Your task to perform on an android device: add a contact in the contacts app Image 0: 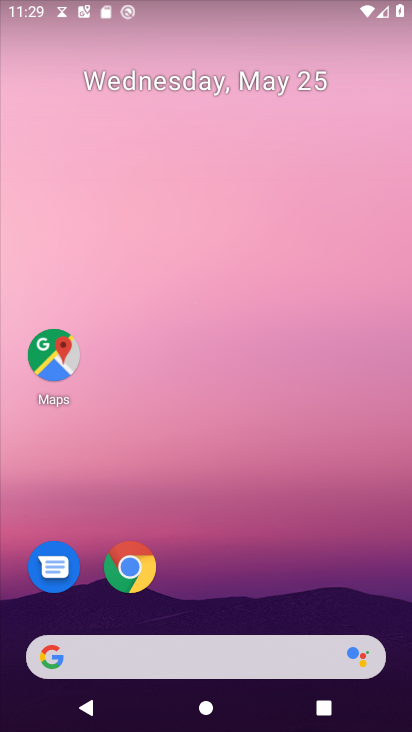
Step 0: drag from (213, 550) to (158, 164)
Your task to perform on an android device: add a contact in the contacts app Image 1: 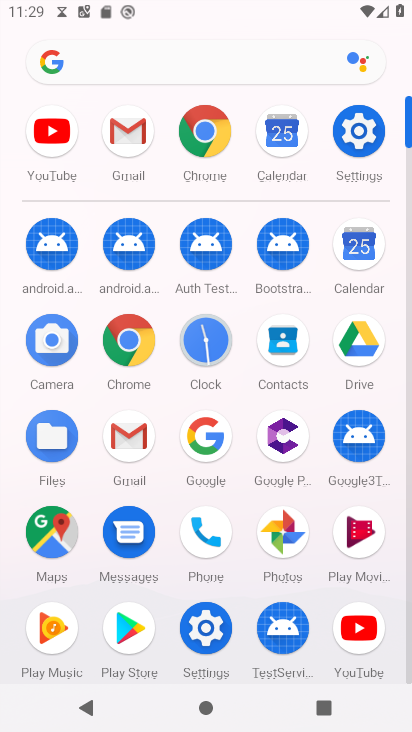
Step 1: click (279, 364)
Your task to perform on an android device: add a contact in the contacts app Image 2: 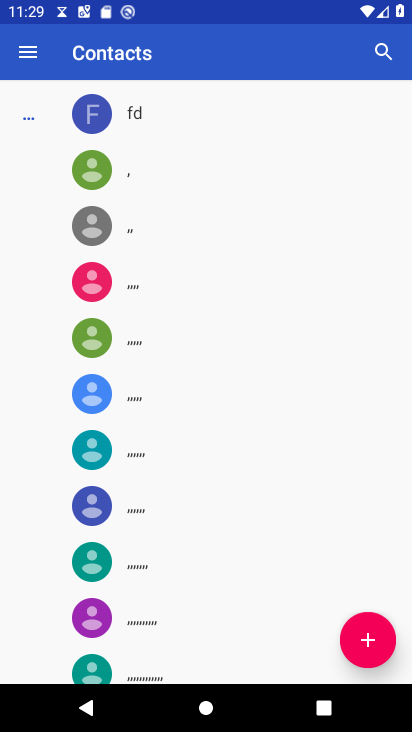
Step 2: click (366, 628)
Your task to perform on an android device: add a contact in the contacts app Image 3: 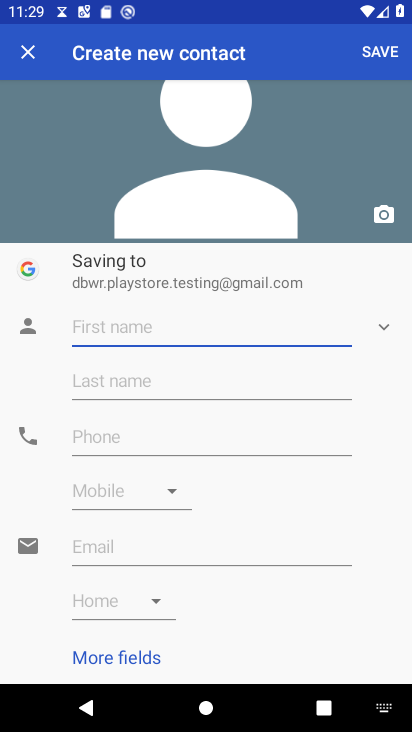
Step 3: type "ss"
Your task to perform on an android device: add a contact in the contacts app Image 4: 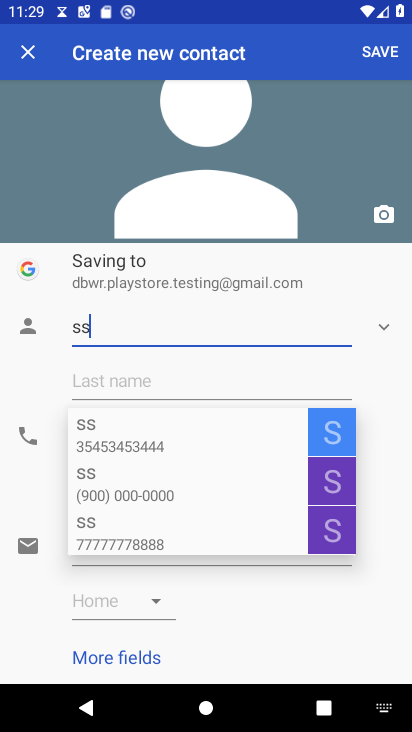
Step 4: click (17, 54)
Your task to perform on an android device: add a contact in the contacts app Image 5: 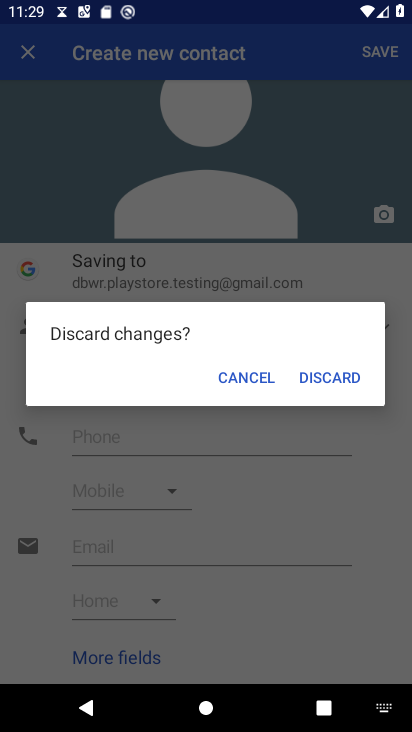
Step 5: click (323, 378)
Your task to perform on an android device: add a contact in the contacts app Image 6: 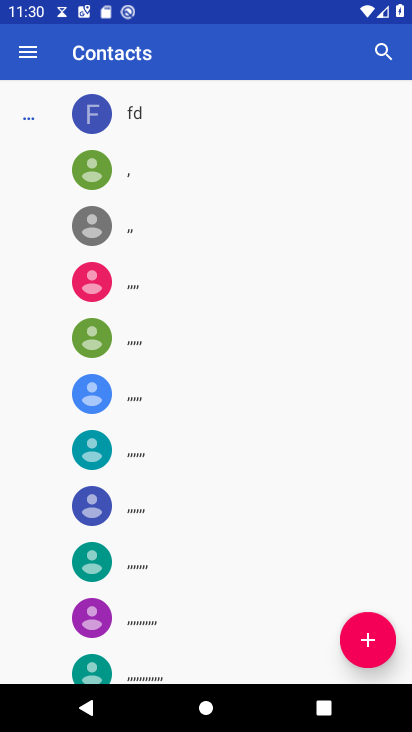
Step 6: click (370, 631)
Your task to perform on an android device: add a contact in the contacts app Image 7: 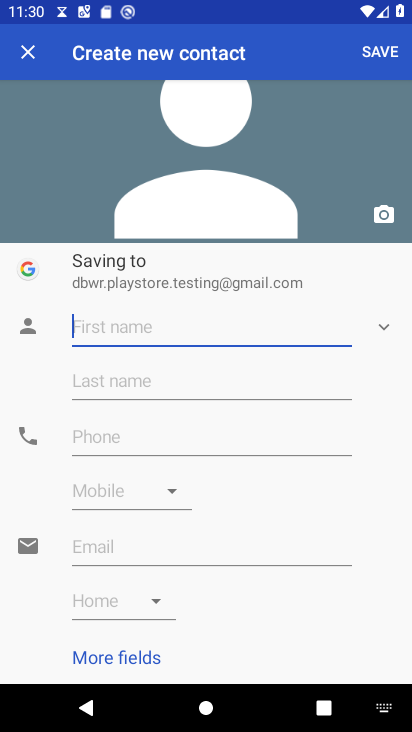
Step 7: type ""
Your task to perform on an android device: add a contact in the contacts app Image 8: 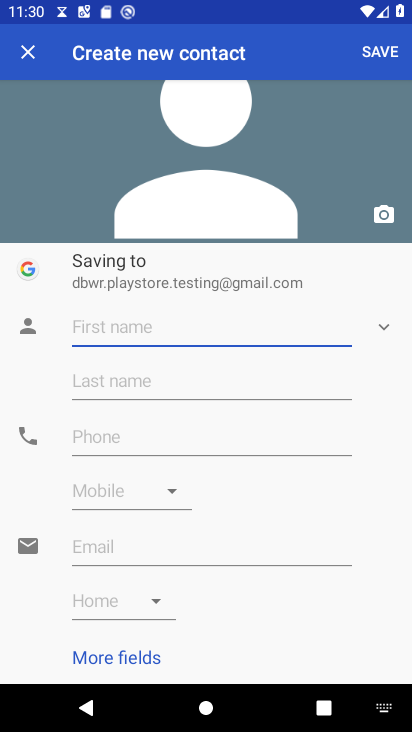
Step 8: type "vjfhbih"
Your task to perform on an android device: add a contact in the contacts app Image 9: 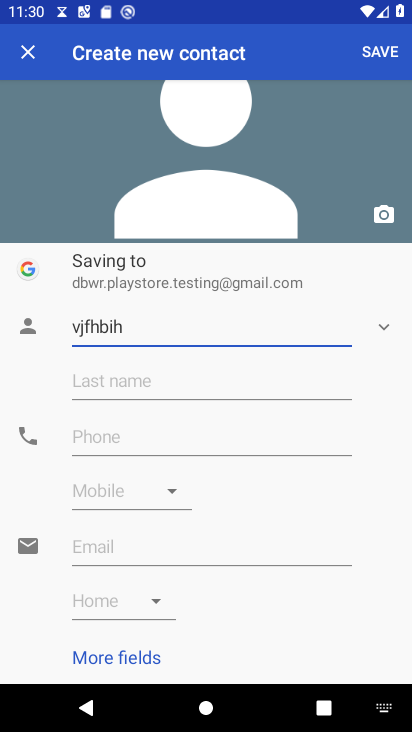
Step 9: click (123, 426)
Your task to perform on an android device: add a contact in the contacts app Image 10: 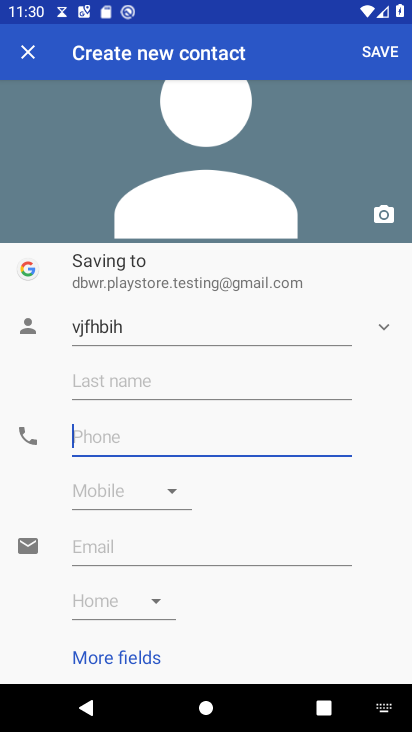
Step 10: type "979856167"
Your task to perform on an android device: add a contact in the contacts app Image 11: 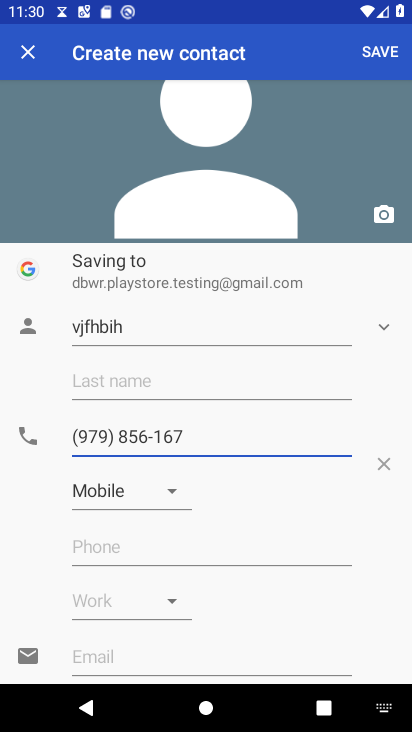
Step 11: click (374, 59)
Your task to perform on an android device: add a contact in the contacts app Image 12: 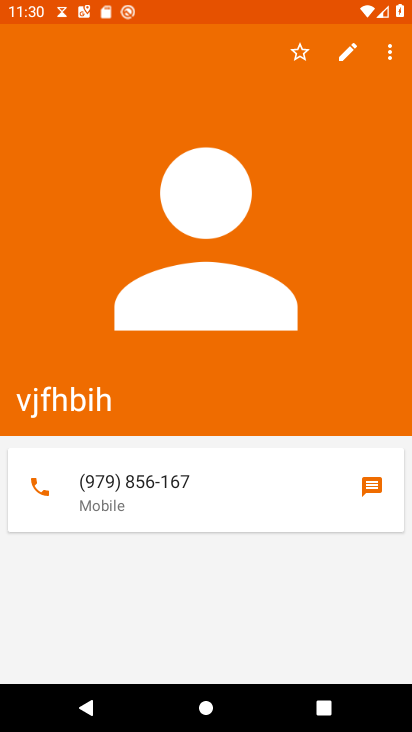
Step 12: task complete